Your task to perform on an android device: Go to settings Image 0: 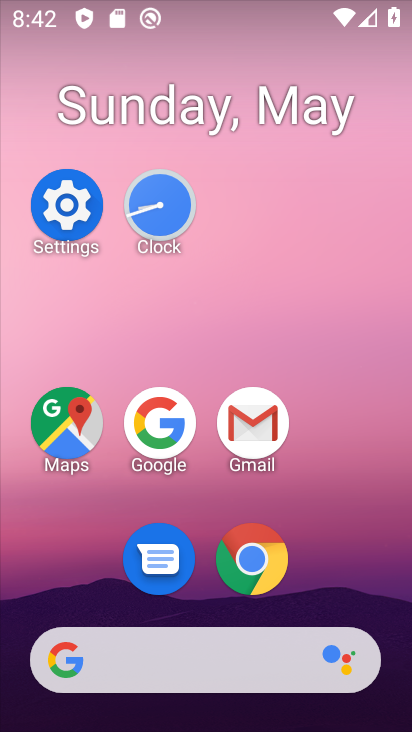
Step 0: click (71, 210)
Your task to perform on an android device: Go to settings Image 1: 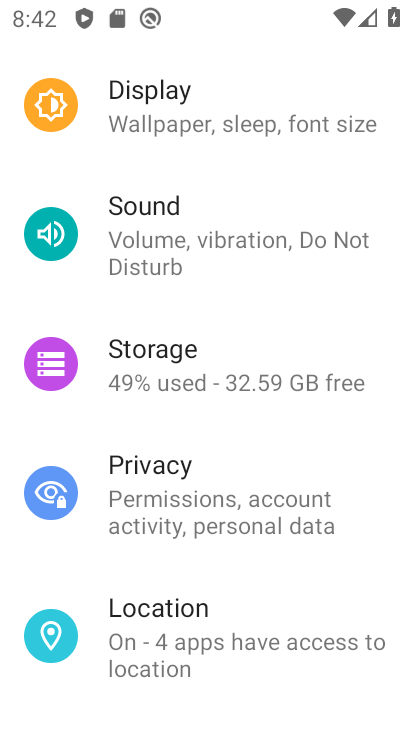
Step 1: task complete